Your task to perform on an android device: add a label to a message in the gmail app Image 0: 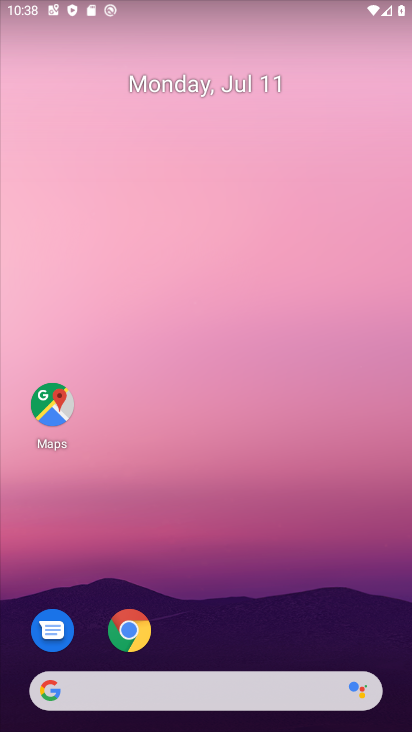
Step 0: drag from (251, 643) to (230, 103)
Your task to perform on an android device: add a label to a message in the gmail app Image 1: 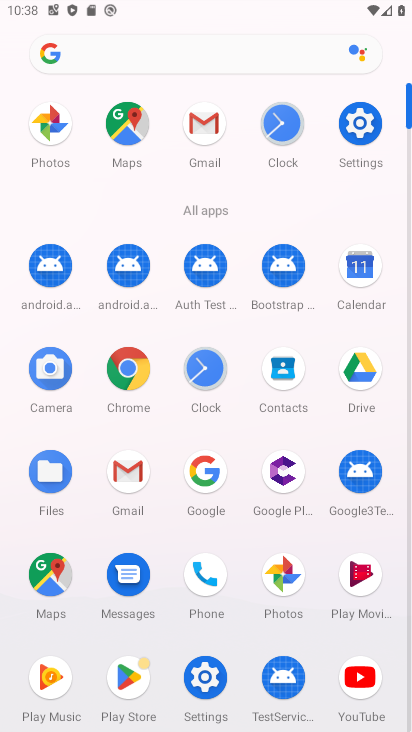
Step 1: click (203, 138)
Your task to perform on an android device: add a label to a message in the gmail app Image 2: 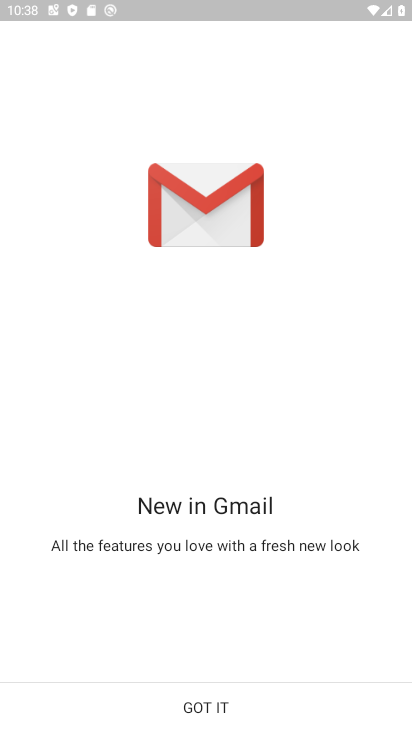
Step 2: click (217, 708)
Your task to perform on an android device: add a label to a message in the gmail app Image 3: 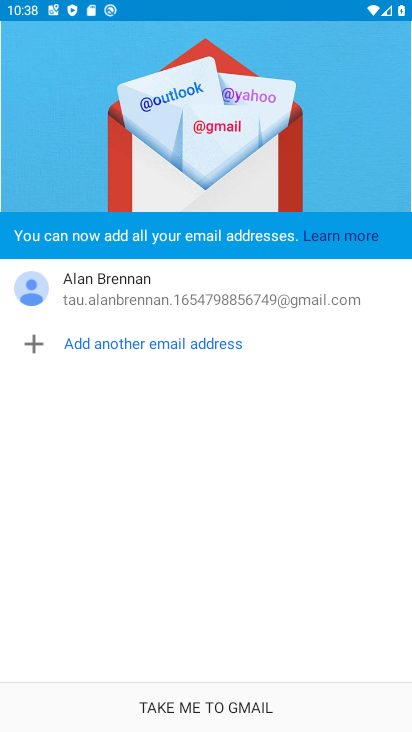
Step 3: click (218, 694)
Your task to perform on an android device: add a label to a message in the gmail app Image 4: 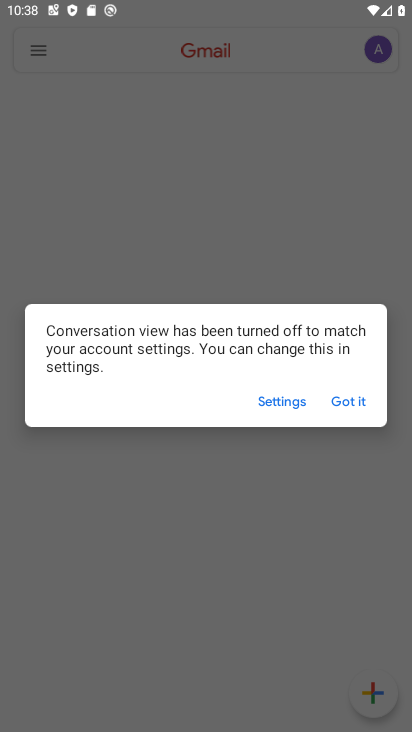
Step 4: click (360, 402)
Your task to perform on an android device: add a label to a message in the gmail app Image 5: 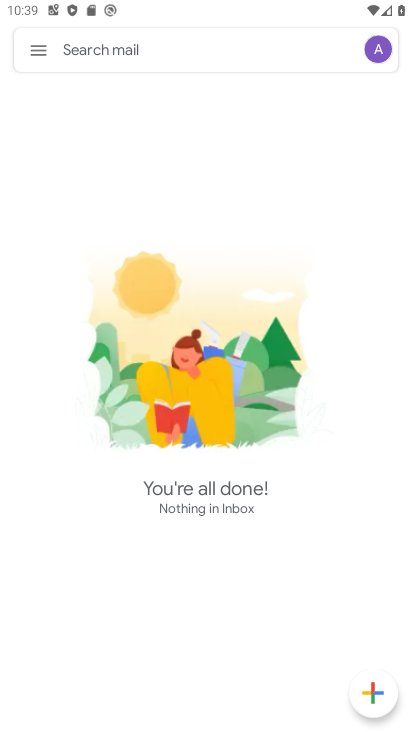
Step 5: task complete